Your task to perform on an android device: Show the shopping cart on amazon.com. Search for "logitech g pro" on amazon.com, select the first entry, add it to the cart, then select checkout. Image 0: 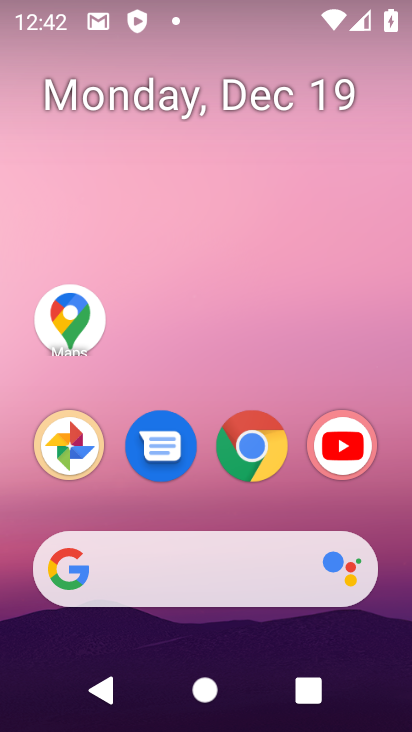
Step 0: click (234, 439)
Your task to perform on an android device: Show the shopping cart on amazon.com. Search for "logitech g pro" on amazon.com, select the first entry, add it to the cart, then select checkout. Image 1: 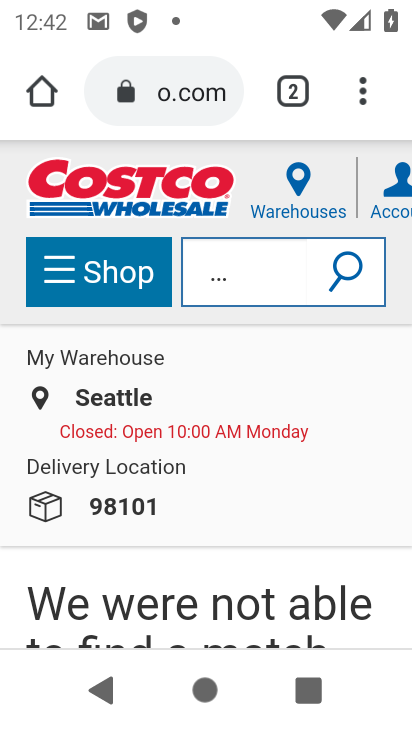
Step 1: click (211, 102)
Your task to perform on an android device: Show the shopping cart on amazon.com. Search for "logitech g pro" on amazon.com, select the first entry, add it to the cart, then select checkout. Image 2: 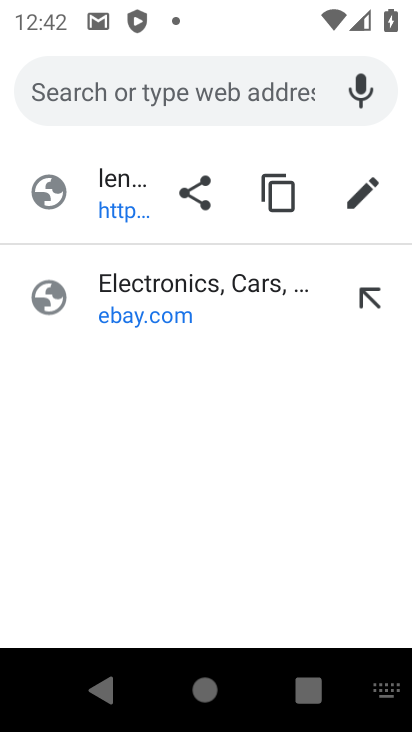
Step 2: type "amazon"
Your task to perform on an android device: Show the shopping cart on amazon.com. Search for "logitech g pro" on amazon.com, select the first entry, add it to the cart, then select checkout. Image 3: 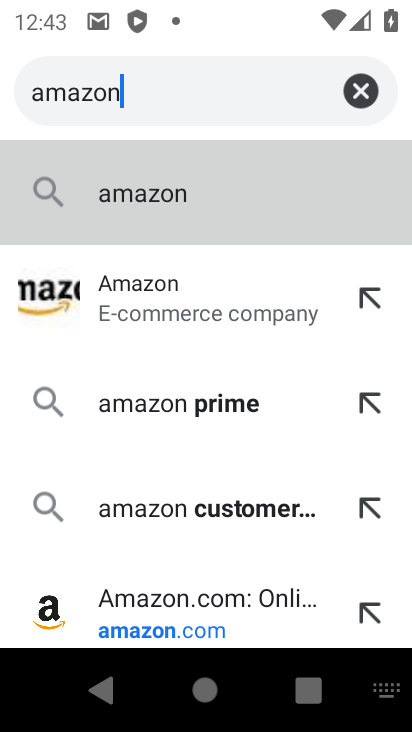
Step 3: click (165, 329)
Your task to perform on an android device: Show the shopping cart on amazon.com. Search for "logitech g pro" on amazon.com, select the first entry, add it to the cart, then select checkout. Image 4: 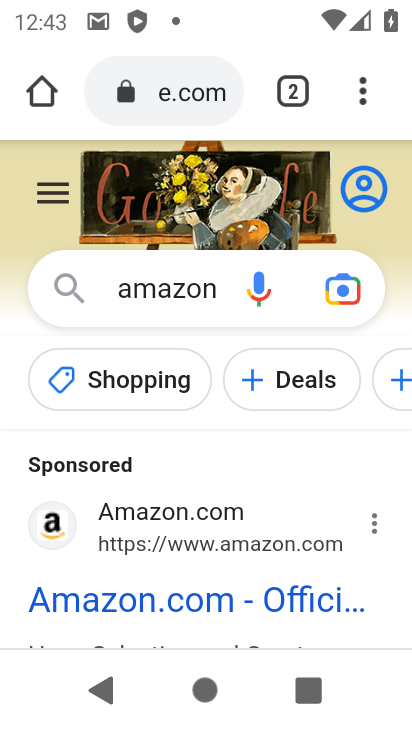
Step 4: click (60, 593)
Your task to perform on an android device: Show the shopping cart on amazon.com. Search for "logitech g pro" on amazon.com, select the first entry, add it to the cart, then select checkout. Image 5: 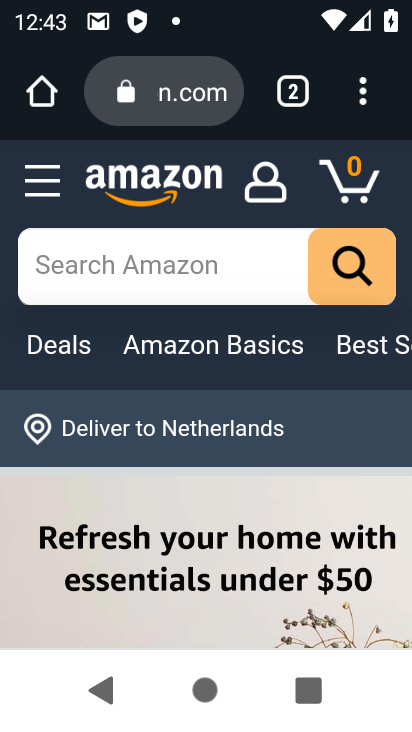
Step 5: click (127, 256)
Your task to perform on an android device: Show the shopping cart on amazon.com. Search for "logitech g pro" on amazon.com, select the first entry, add it to the cart, then select checkout. Image 6: 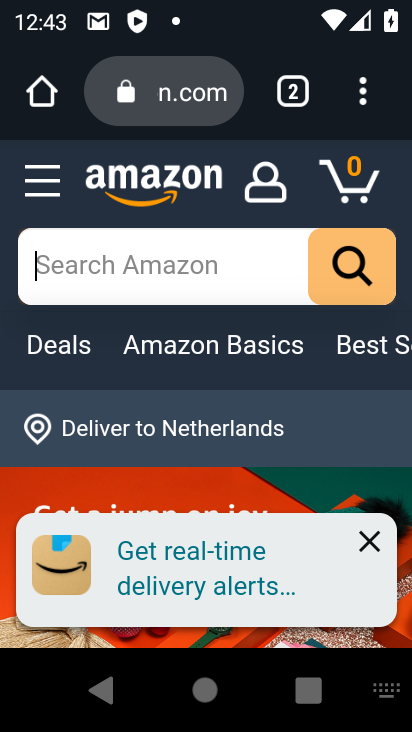
Step 6: click (381, 549)
Your task to perform on an android device: Show the shopping cart on amazon.com. Search for "logitech g pro" on amazon.com, select the first entry, add it to the cart, then select checkout. Image 7: 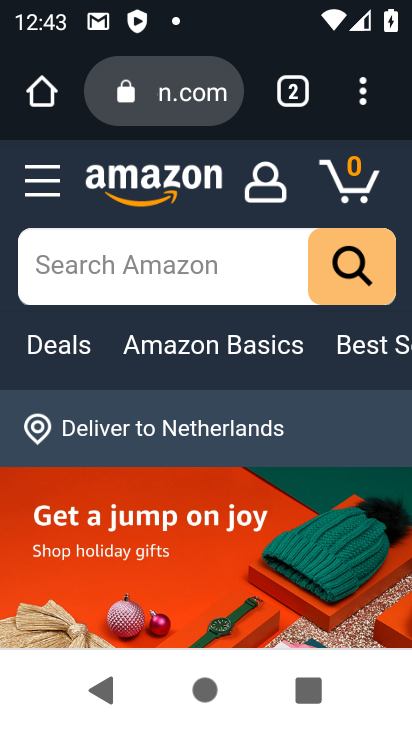
Step 7: click (180, 263)
Your task to perform on an android device: Show the shopping cart on amazon.com. Search for "logitech g pro" on amazon.com, select the first entry, add it to the cart, then select checkout. Image 8: 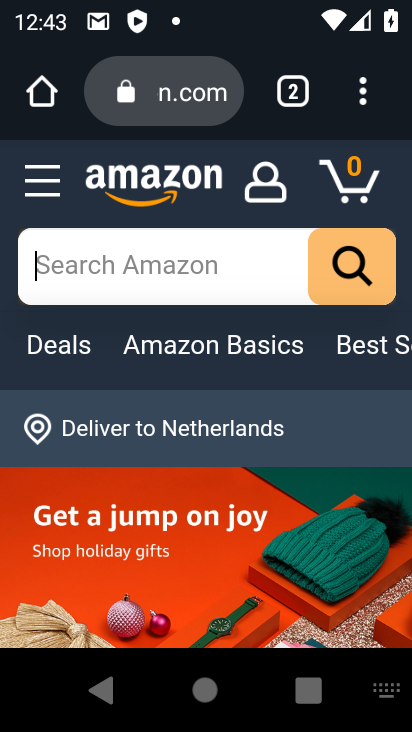
Step 8: type "logitech g pro"
Your task to perform on an android device: Show the shopping cart on amazon.com. Search for "logitech g pro" on amazon.com, select the first entry, add it to the cart, then select checkout. Image 9: 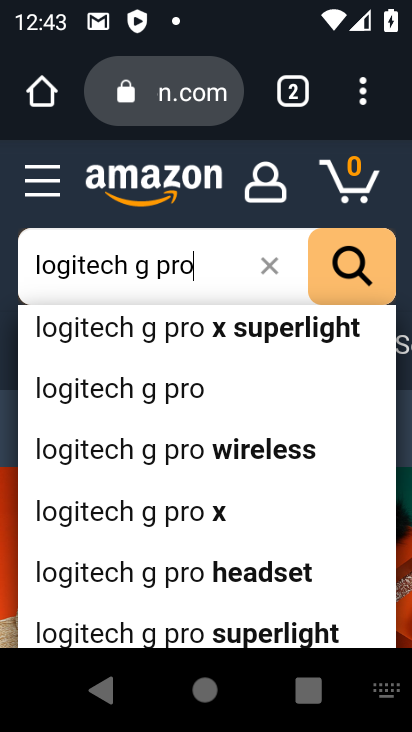
Step 9: click (364, 280)
Your task to perform on an android device: Show the shopping cart on amazon.com. Search for "logitech g pro" on amazon.com, select the first entry, add it to the cart, then select checkout. Image 10: 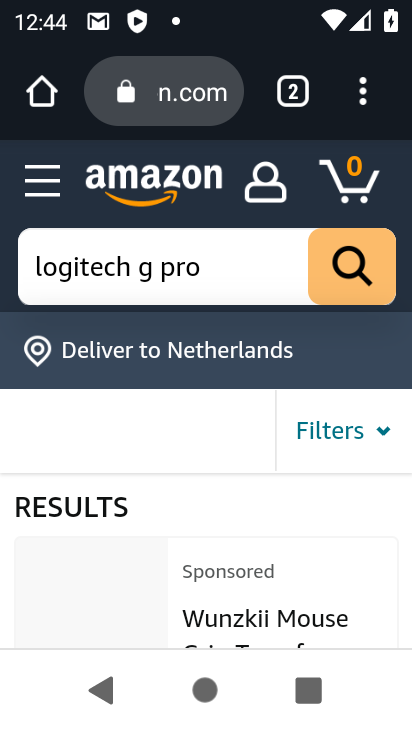
Step 10: click (330, 262)
Your task to perform on an android device: Show the shopping cart on amazon.com. Search for "logitech g pro" on amazon.com, select the first entry, add it to the cart, then select checkout. Image 11: 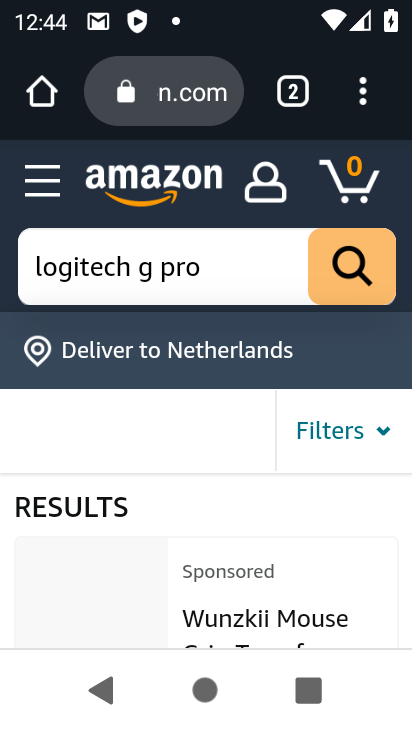
Step 11: task complete